Your task to perform on an android device: create a new album in the google photos Image 0: 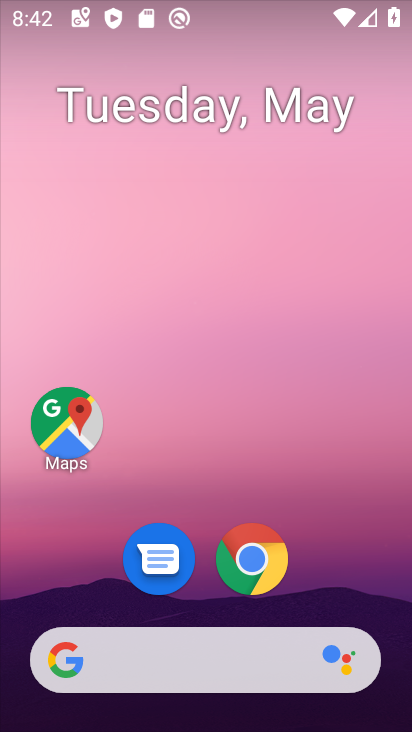
Step 0: drag from (214, 661) to (226, 108)
Your task to perform on an android device: create a new album in the google photos Image 1: 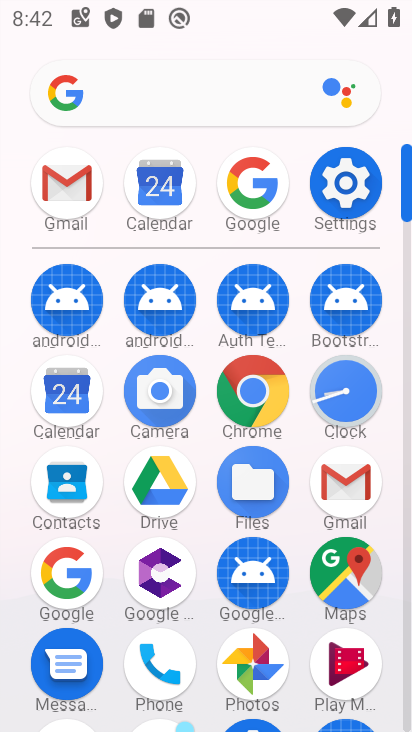
Step 1: click (260, 674)
Your task to perform on an android device: create a new album in the google photos Image 2: 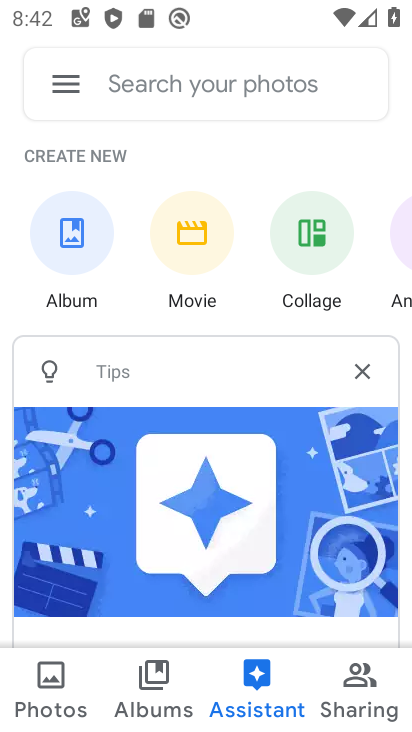
Step 2: click (83, 259)
Your task to perform on an android device: create a new album in the google photos Image 3: 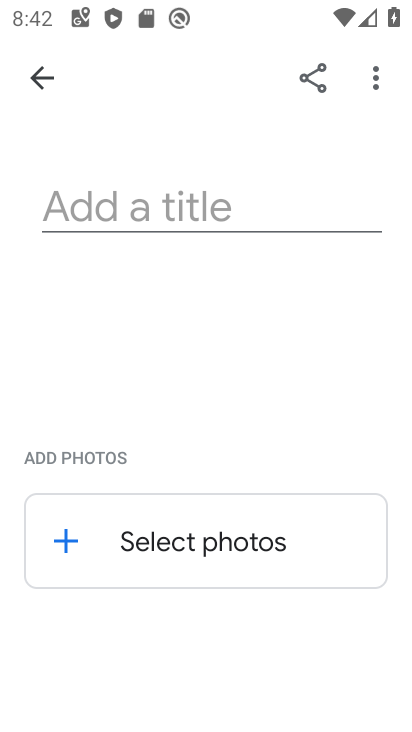
Step 3: click (166, 215)
Your task to perform on an android device: create a new album in the google photos Image 4: 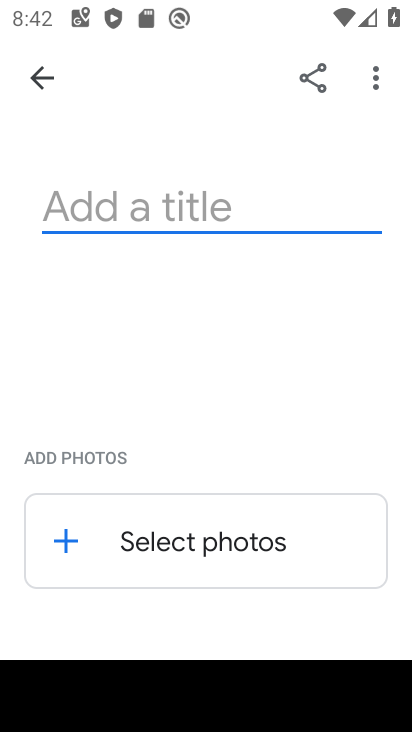
Step 4: type "vbnbcbbbn"
Your task to perform on an android device: create a new album in the google photos Image 5: 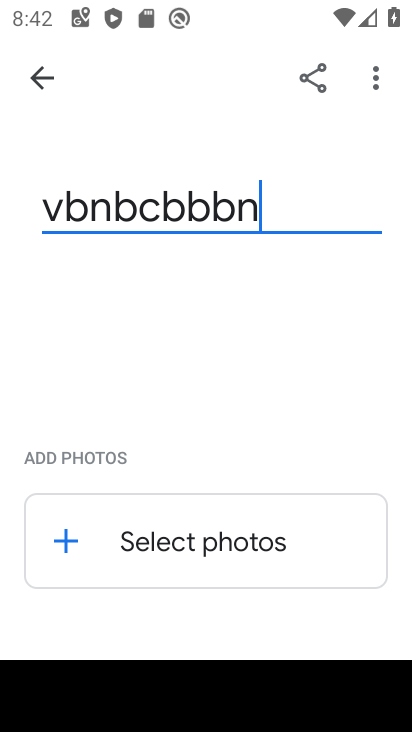
Step 5: click (225, 525)
Your task to perform on an android device: create a new album in the google photos Image 6: 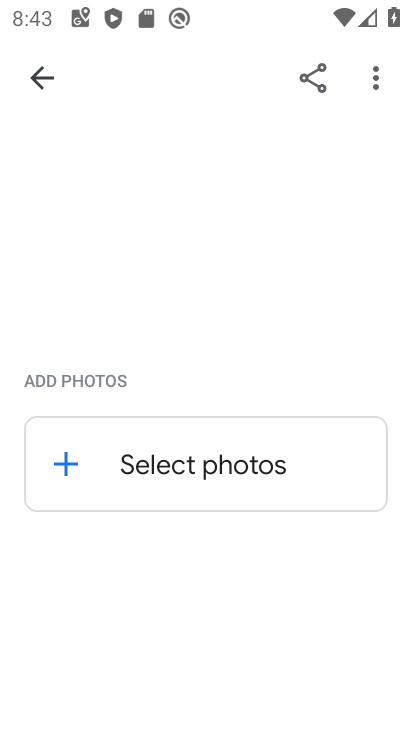
Step 6: click (203, 468)
Your task to perform on an android device: create a new album in the google photos Image 7: 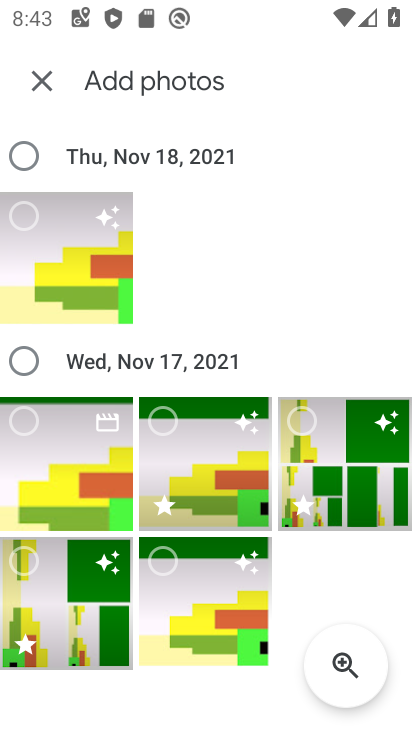
Step 7: click (24, 159)
Your task to perform on an android device: create a new album in the google photos Image 8: 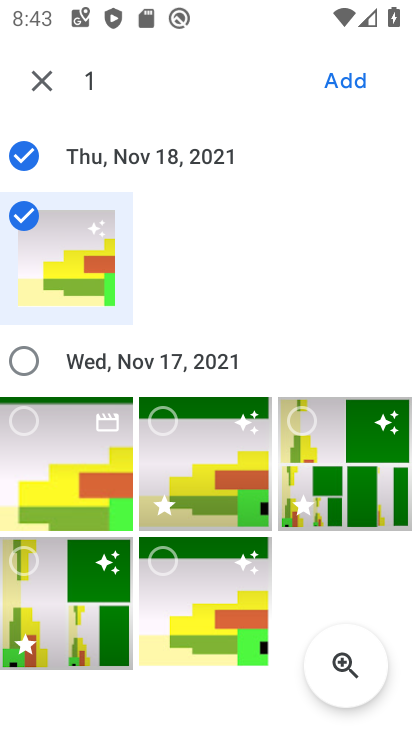
Step 8: click (14, 351)
Your task to perform on an android device: create a new album in the google photos Image 9: 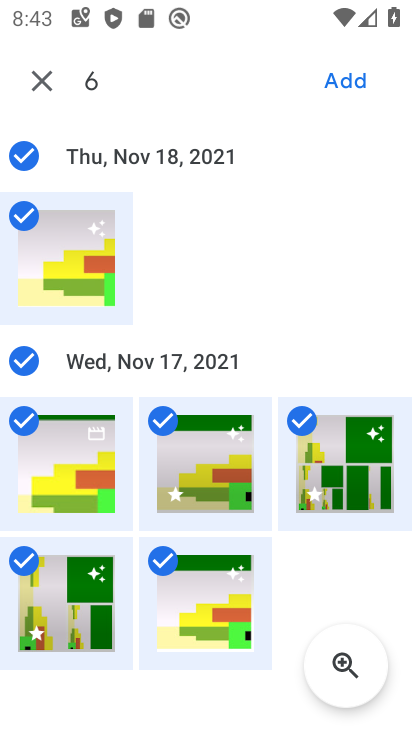
Step 9: click (354, 94)
Your task to perform on an android device: create a new album in the google photos Image 10: 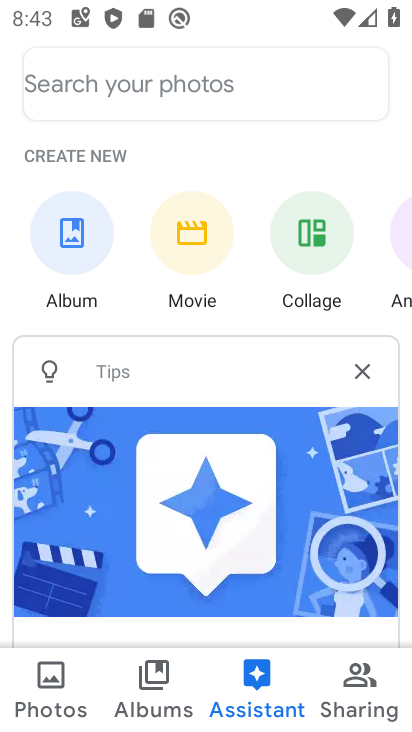
Step 10: task complete